Your task to perform on an android device: Open calendar and show me the fourth week of next month Image 0: 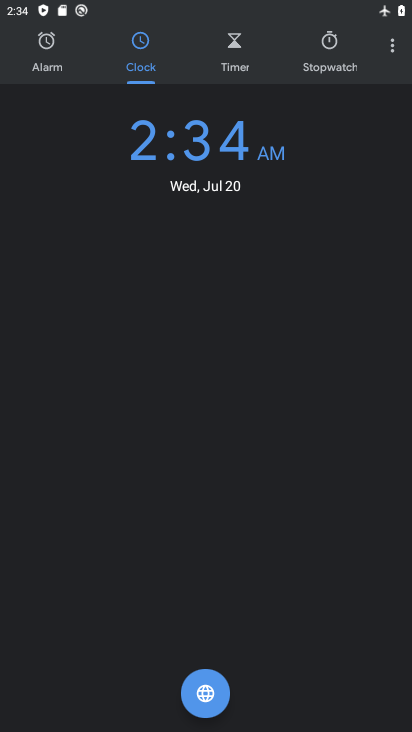
Step 0: press back button
Your task to perform on an android device: Open calendar and show me the fourth week of next month Image 1: 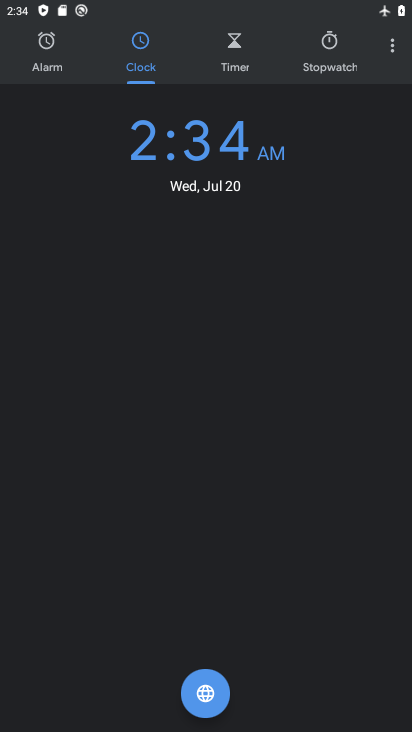
Step 1: press back button
Your task to perform on an android device: Open calendar and show me the fourth week of next month Image 2: 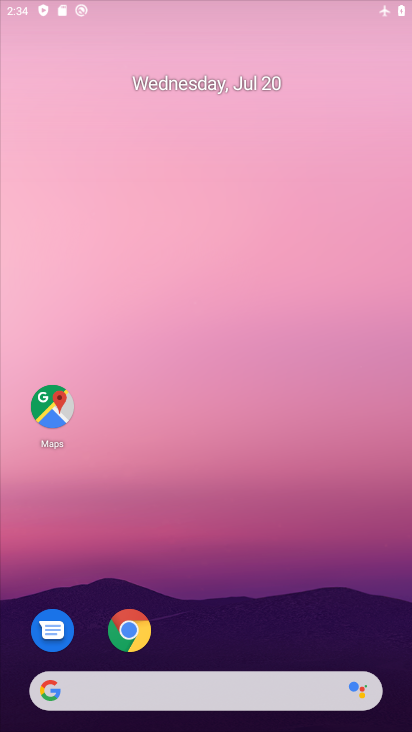
Step 2: press back button
Your task to perform on an android device: Open calendar and show me the fourth week of next month Image 3: 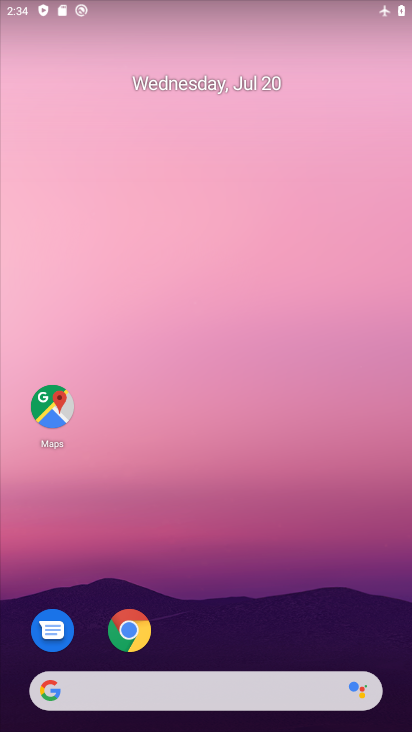
Step 3: drag from (285, 395) to (226, 103)
Your task to perform on an android device: Open calendar and show me the fourth week of next month Image 4: 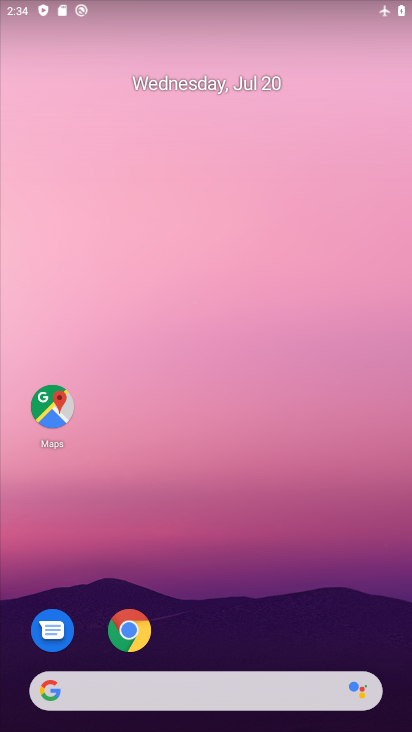
Step 4: drag from (210, 502) to (151, 109)
Your task to perform on an android device: Open calendar and show me the fourth week of next month Image 5: 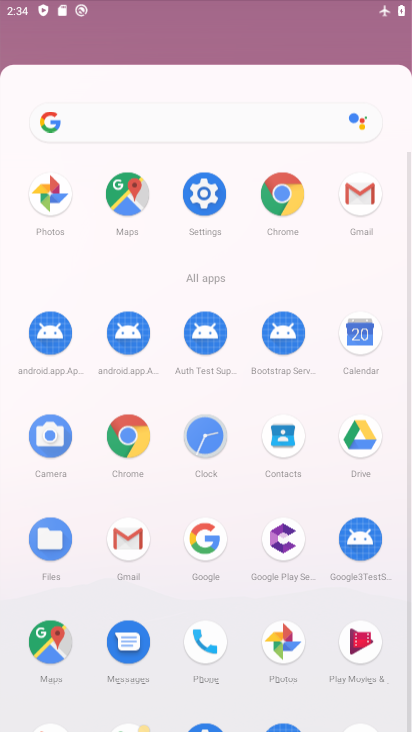
Step 5: drag from (169, 606) to (194, 186)
Your task to perform on an android device: Open calendar and show me the fourth week of next month Image 6: 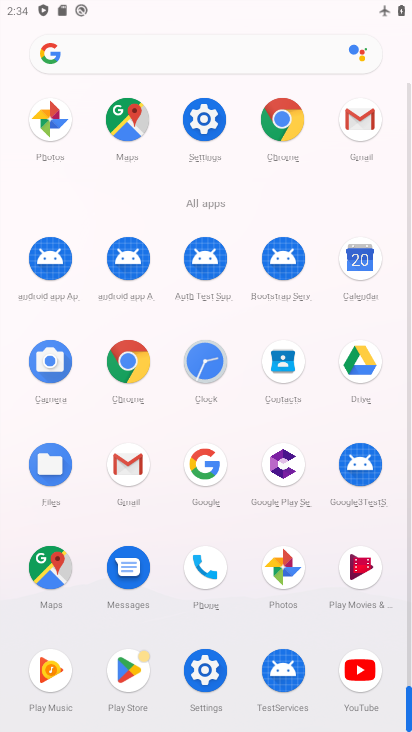
Step 6: click (361, 261)
Your task to perform on an android device: Open calendar and show me the fourth week of next month Image 7: 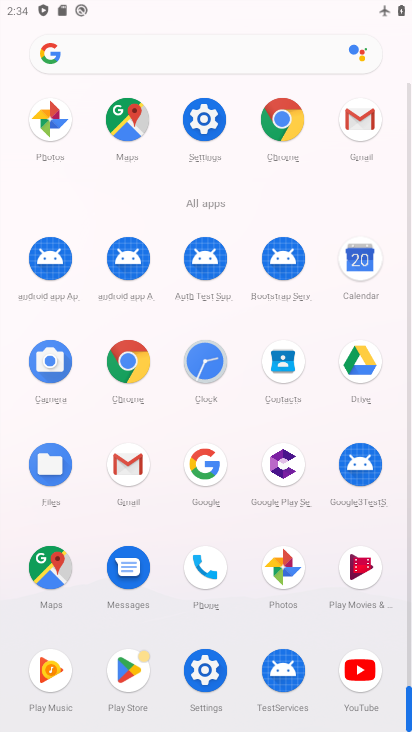
Step 7: click (362, 261)
Your task to perform on an android device: Open calendar and show me the fourth week of next month Image 8: 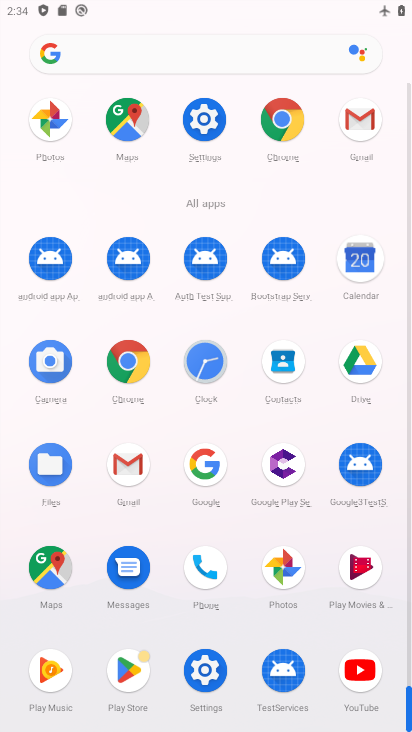
Step 8: click (362, 261)
Your task to perform on an android device: Open calendar and show me the fourth week of next month Image 9: 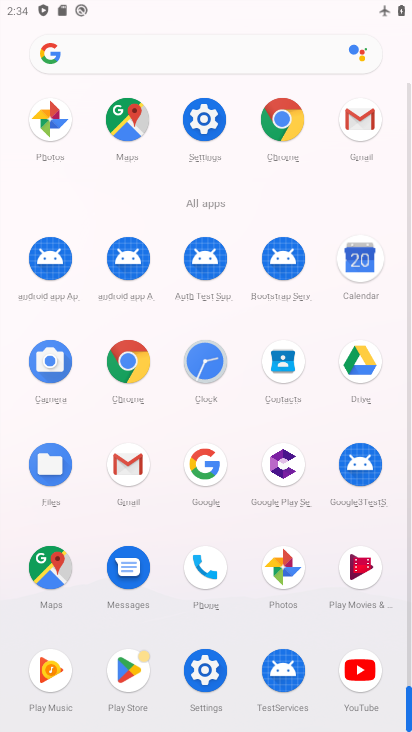
Step 9: click (362, 260)
Your task to perform on an android device: Open calendar and show me the fourth week of next month Image 10: 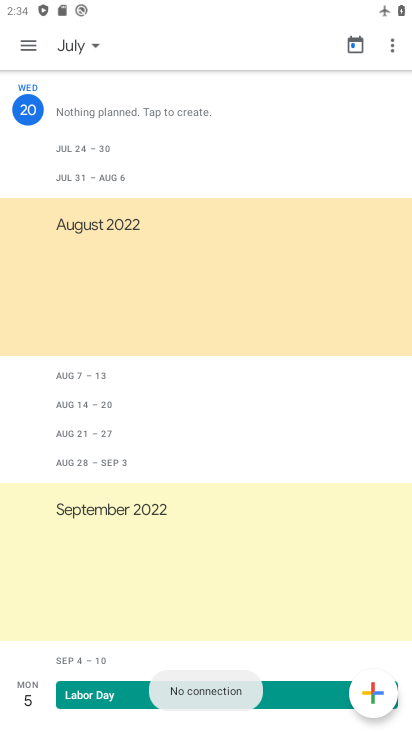
Step 10: click (355, 258)
Your task to perform on an android device: Open calendar and show me the fourth week of next month Image 11: 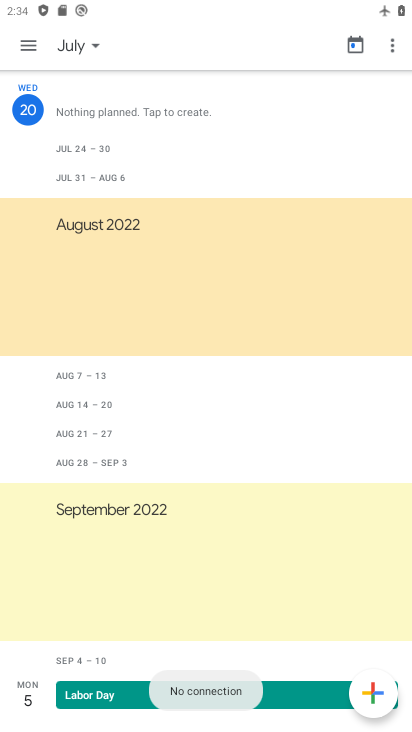
Step 11: click (355, 258)
Your task to perform on an android device: Open calendar and show me the fourth week of next month Image 12: 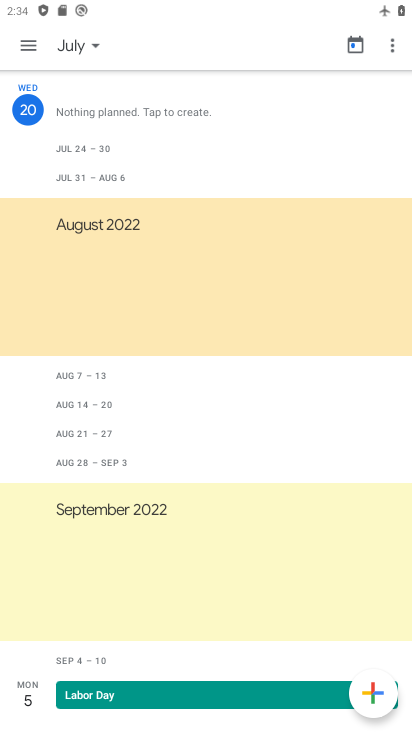
Step 12: click (98, 43)
Your task to perform on an android device: Open calendar and show me the fourth week of next month Image 13: 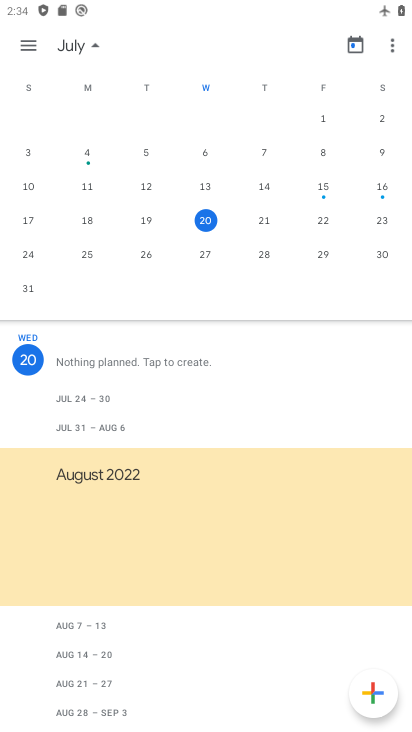
Step 13: drag from (338, 180) to (18, 265)
Your task to perform on an android device: Open calendar and show me the fourth week of next month Image 14: 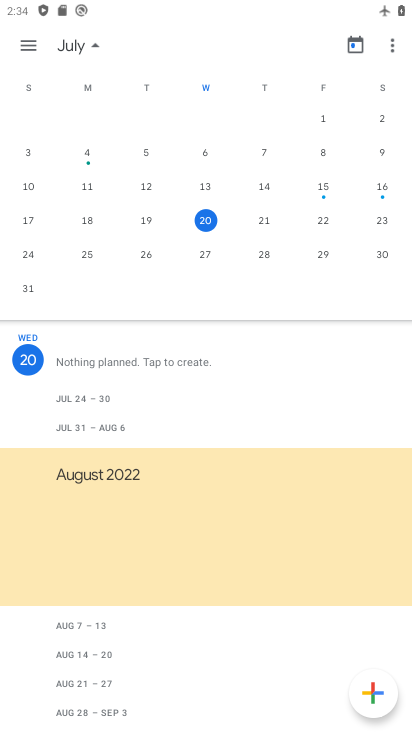
Step 14: drag from (281, 213) to (18, 236)
Your task to perform on an android device: Open calendar and show me the fourth week of next month Image 15: 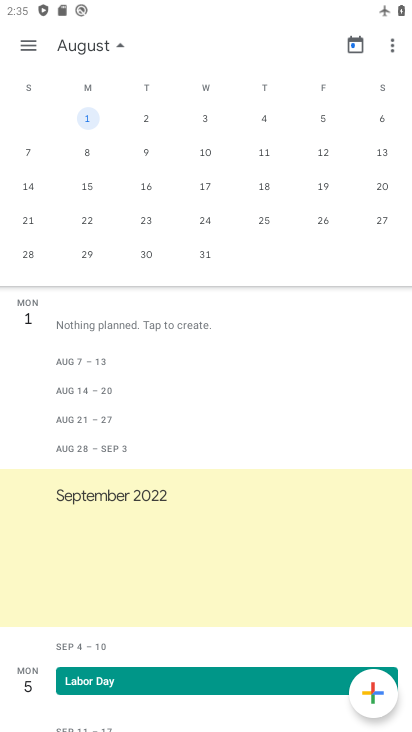
Step 15: click (148, 215)
Your task to perform on an android device: Open calendar and show me the fourth week of next month Image 16: 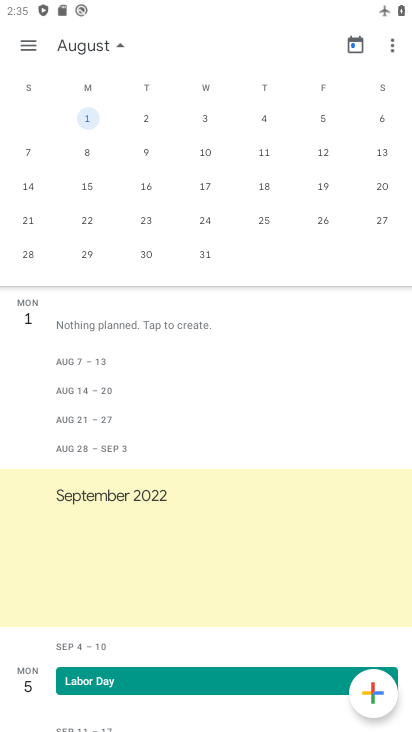
Step 16: click (148, 215)
Your task to perform on an android device: Open calendar and show me the fourth week of next month Image 17: 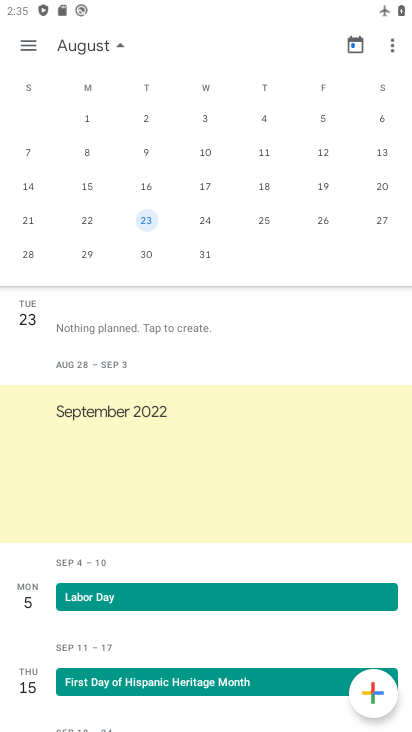
Step 17: click (143, 218)
Your task to perform on an android device: Open calendar and show me the fourth week of next month Image 18: 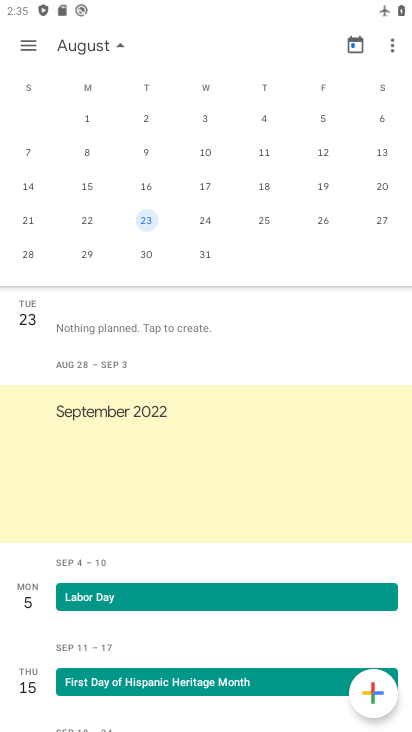
Step 18: click (143, 218)
Your task to perform on an android device: Open calendar and show me the fourth week of next month Image 19: 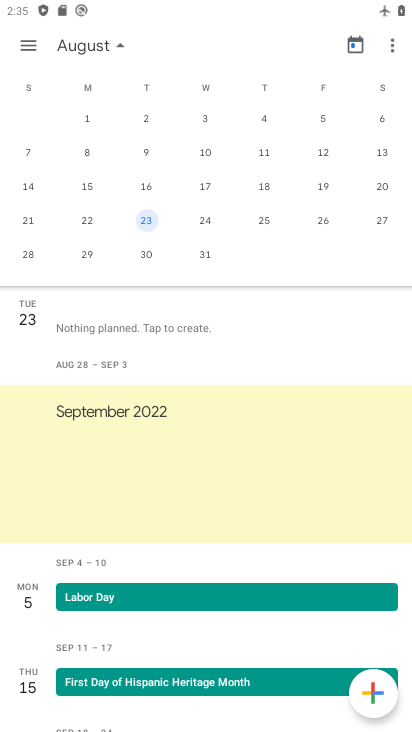
Step 19: task complete